Your task to perform on an android device: turn off translation in the chrome app Image 0: 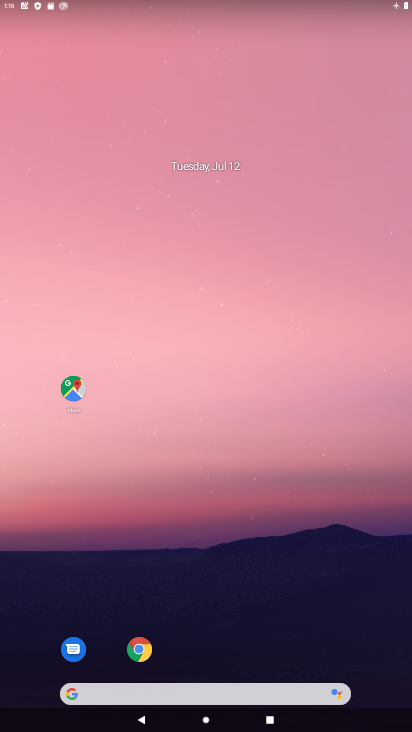
Step 0: click (137, 651)
Your task to perform on an android device: turn off translation in the chrome app Image 1: 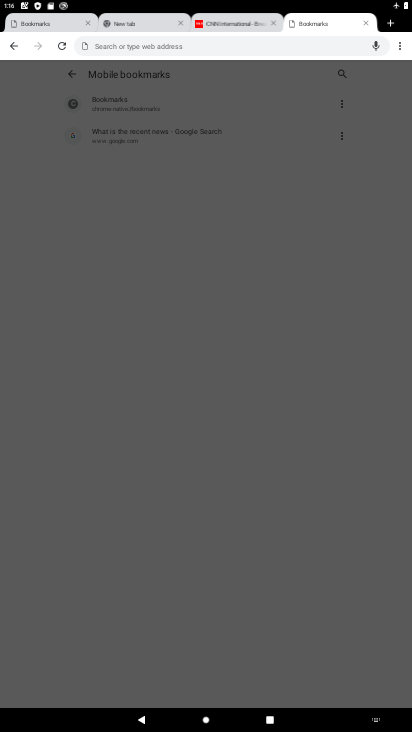
Step 1: task complete